Your task to perform on an android device: turn on the 12-hour format for clock Image 0: 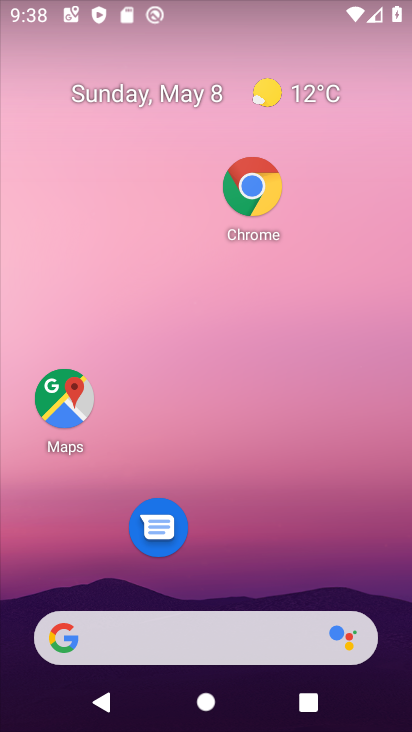
Step 0: drag from (243, 488) to (277, 325)
Your task to perform on an android device: turn on the 12-hour format for clock Image 1: 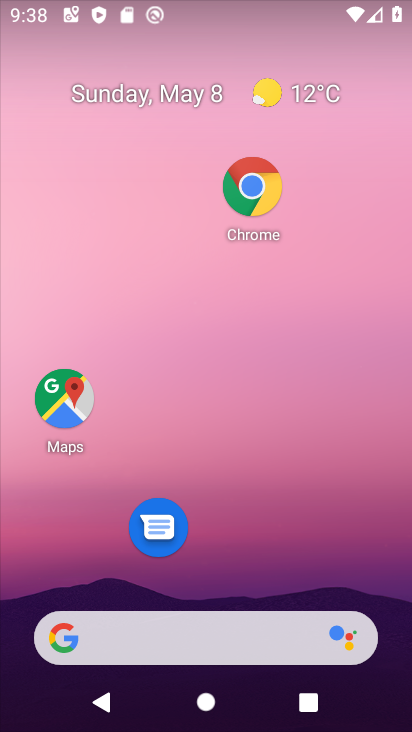
Step 1: drag from (278, 602) to (334, 229)
Your task to perform on an android device: turn on the 12-hour format for clock Image 2: 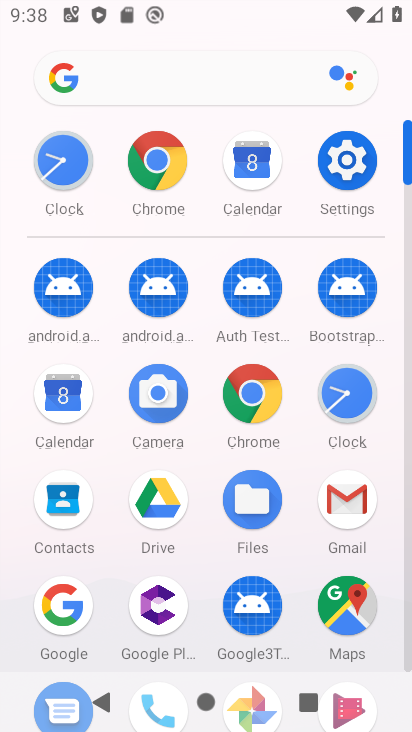
Step 2: click (335, 389)
Your task to perform on an android device: turn on the 12-hour format for clock Image 3: 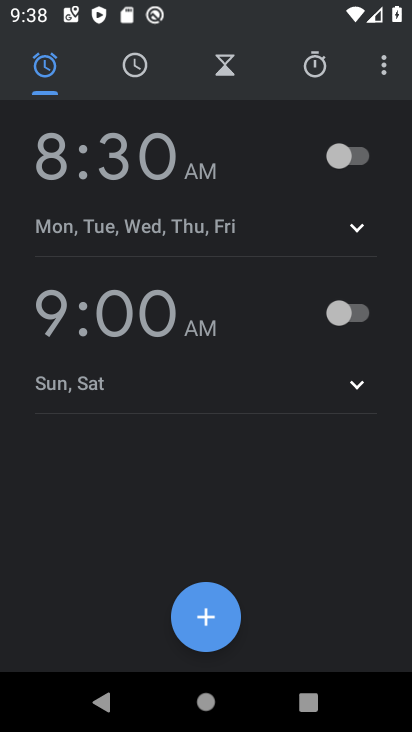
Step 3: click (371, 61)
Your task to perform on an android device: turn on the 12-hour format for clock Image 4: 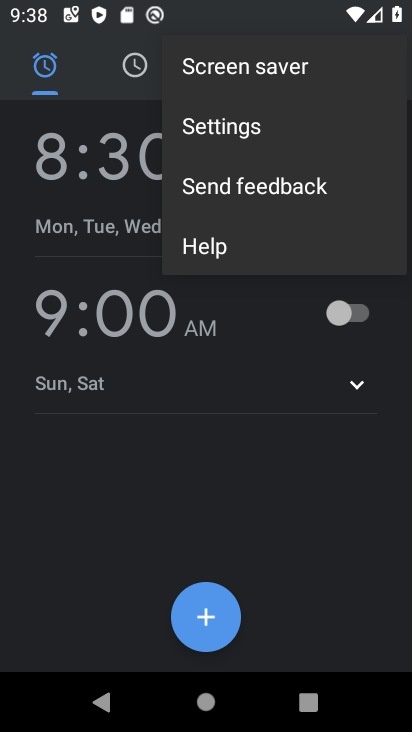
Step 4: click (210, 127)
Your task to perform on an android device: turn on the 12-hour format for clock Image 5: 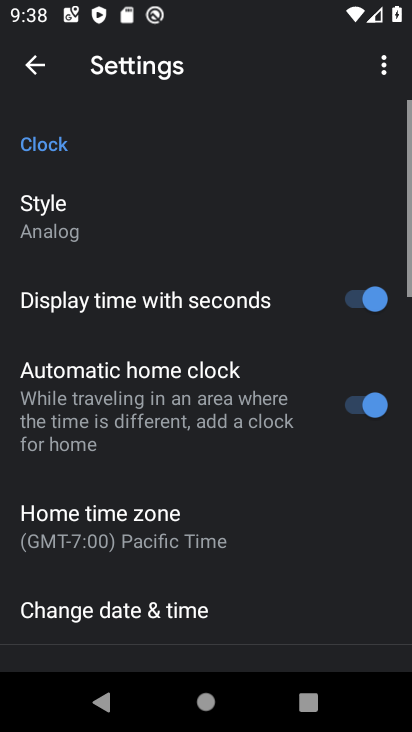
Step 5: drag from (189, 573) to (239, 313)
Your task to perform on an android device: turn on the 12-hour format for clock Image 6: 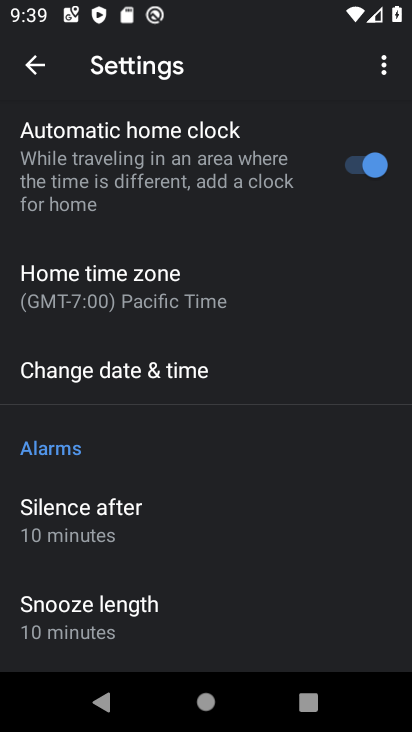
Step 6: click (210, 362)
Your task to perform on an android device: turn on the 12-hour format for clock Image 7: 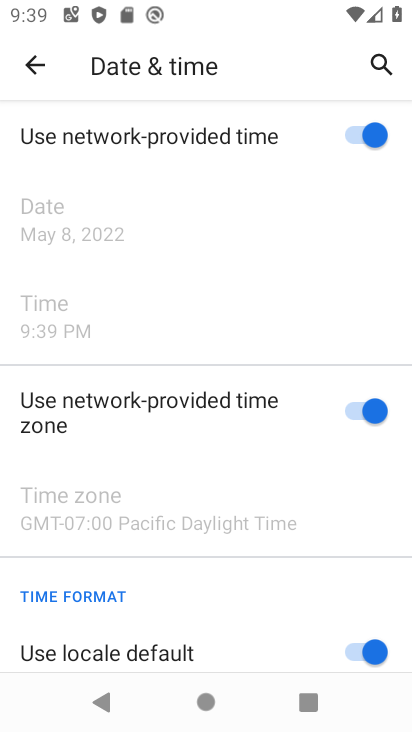
Step 7: drag from (161, 565) to (188, 296)
Your task to perform on an android device: turn on the 12-hour format for clock Image 8: 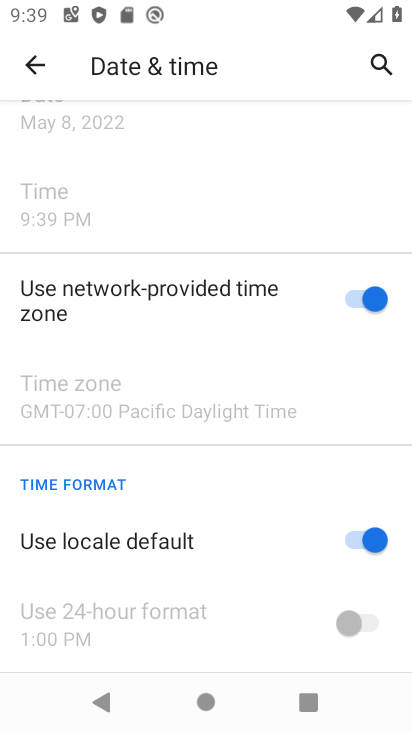
Step 8: click (356, 541)
Your task to perform on an android device: turn on the 12-hour format for clock Image 9: 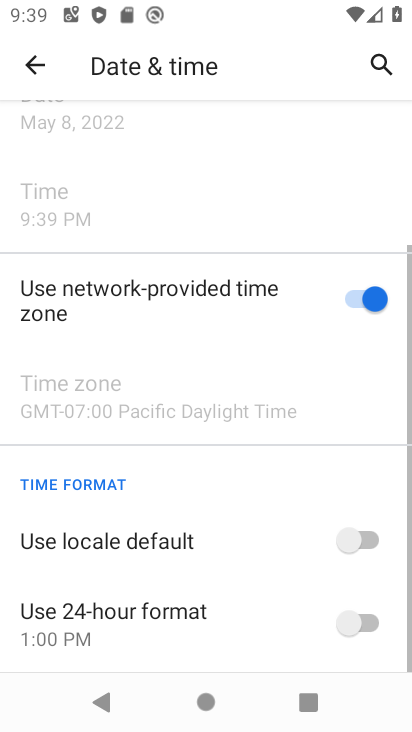
Step 9: click (368, 620)
Your task to perform on an android device: turn on the 12-hour format for clock Image 10: 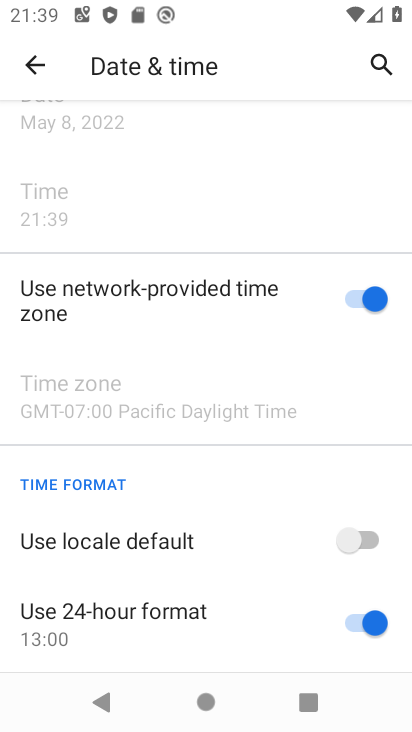
Step 10: task complete